Your task to perform on an android device: turn off location Image 0: 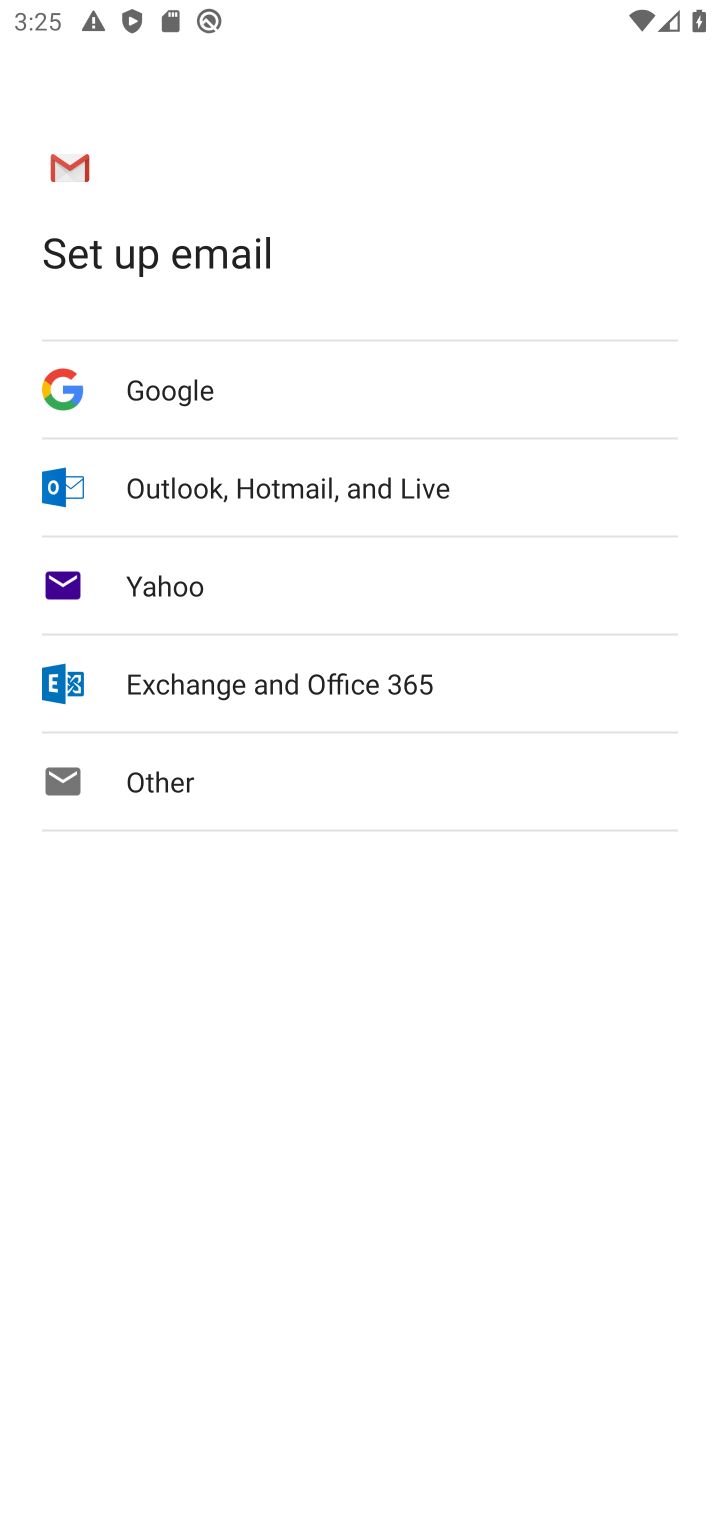
Step 0: press home button
Your task to perform on an android device: turn off location Image 1: 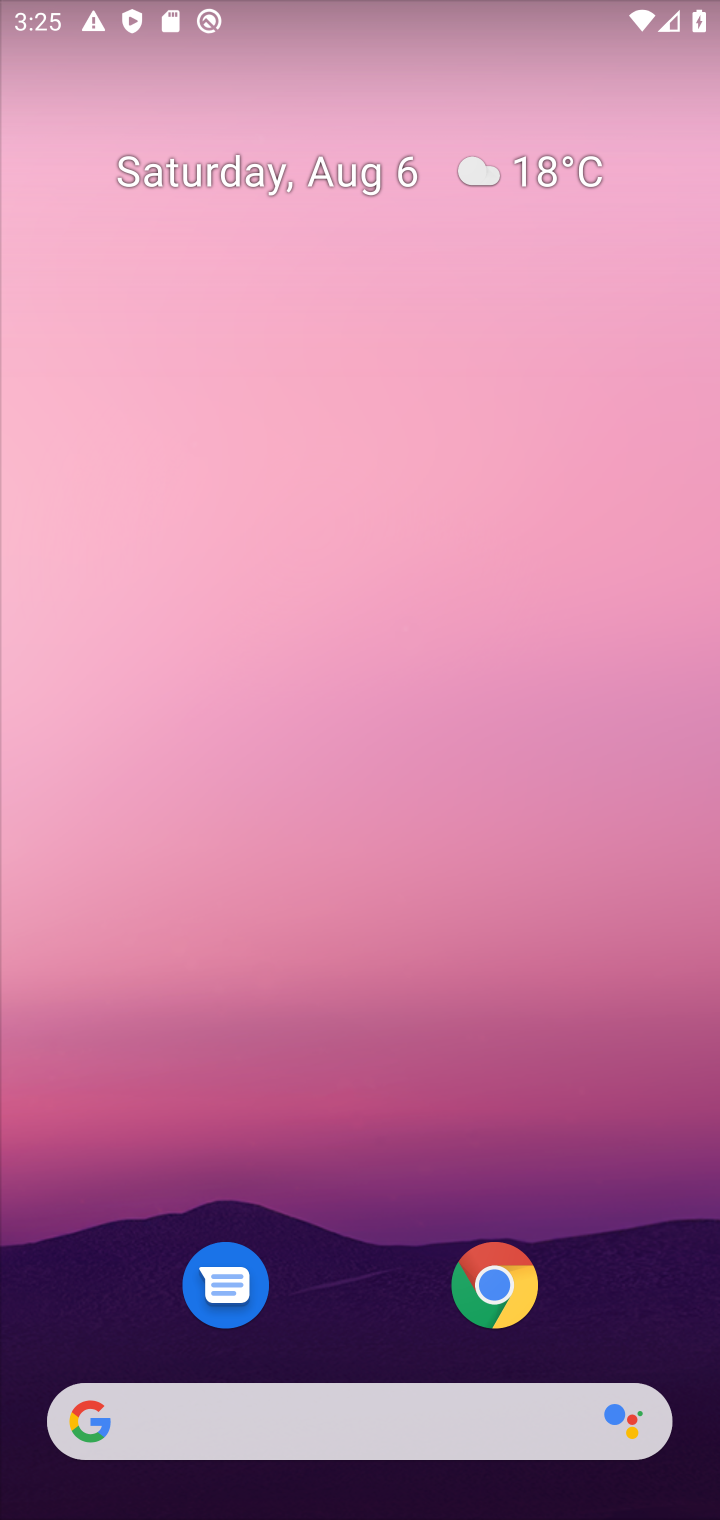
Step 1: drag from (395, 1163) to (474, 35)
Your task to perform on an android device: turn off location Image 2: 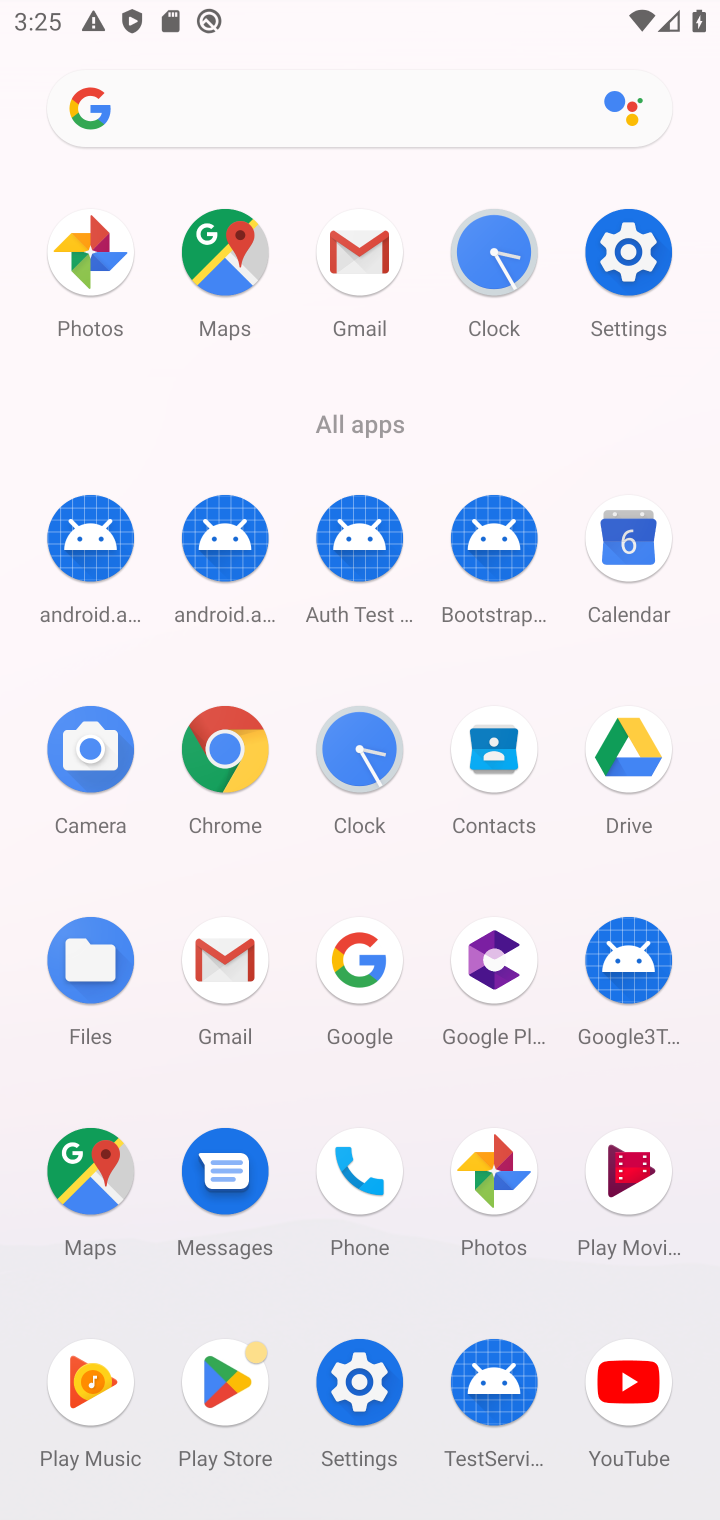
Step 2: click (626, 247)
Your task to perform on an android device: turn off location Image 3: 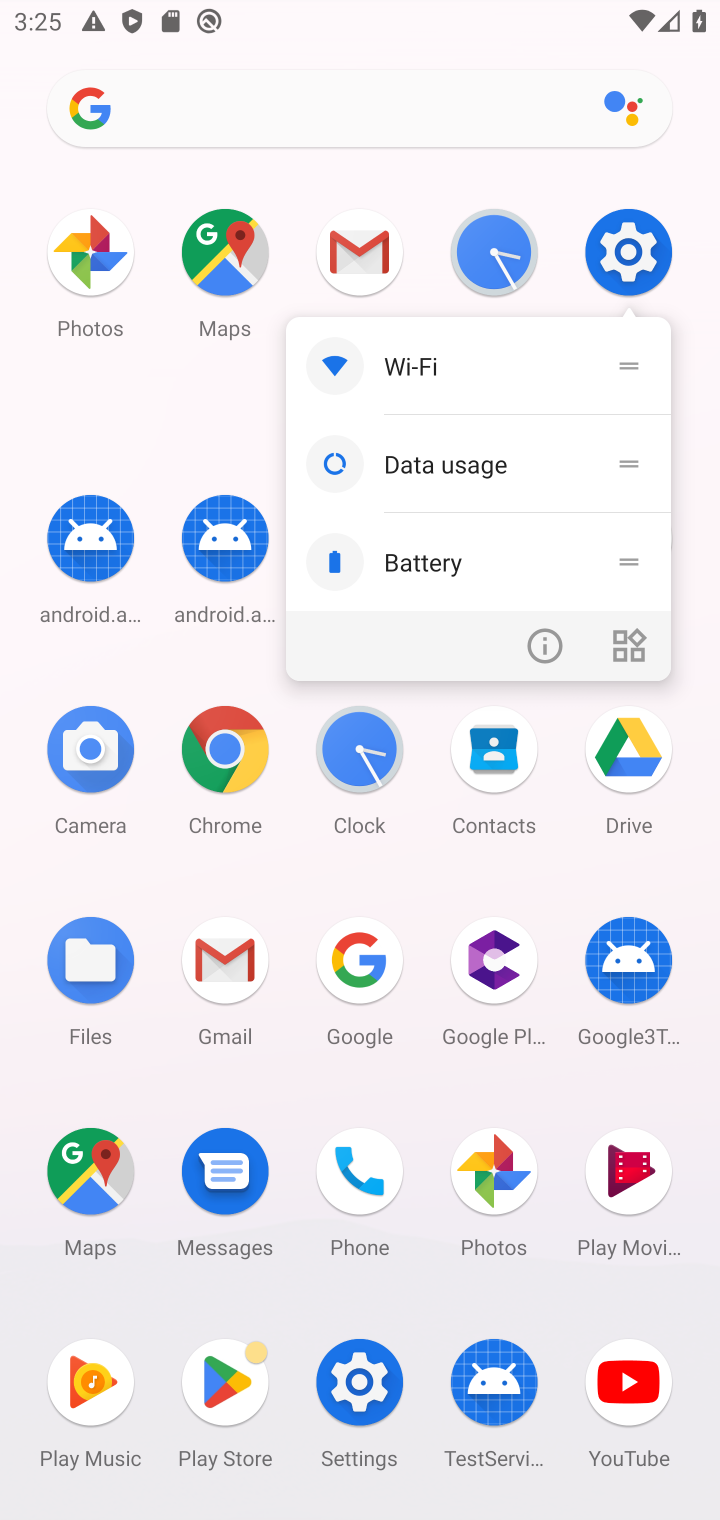
Step 3: click (630, 255)
Your task to perform on an android device: turn off location Image 4: 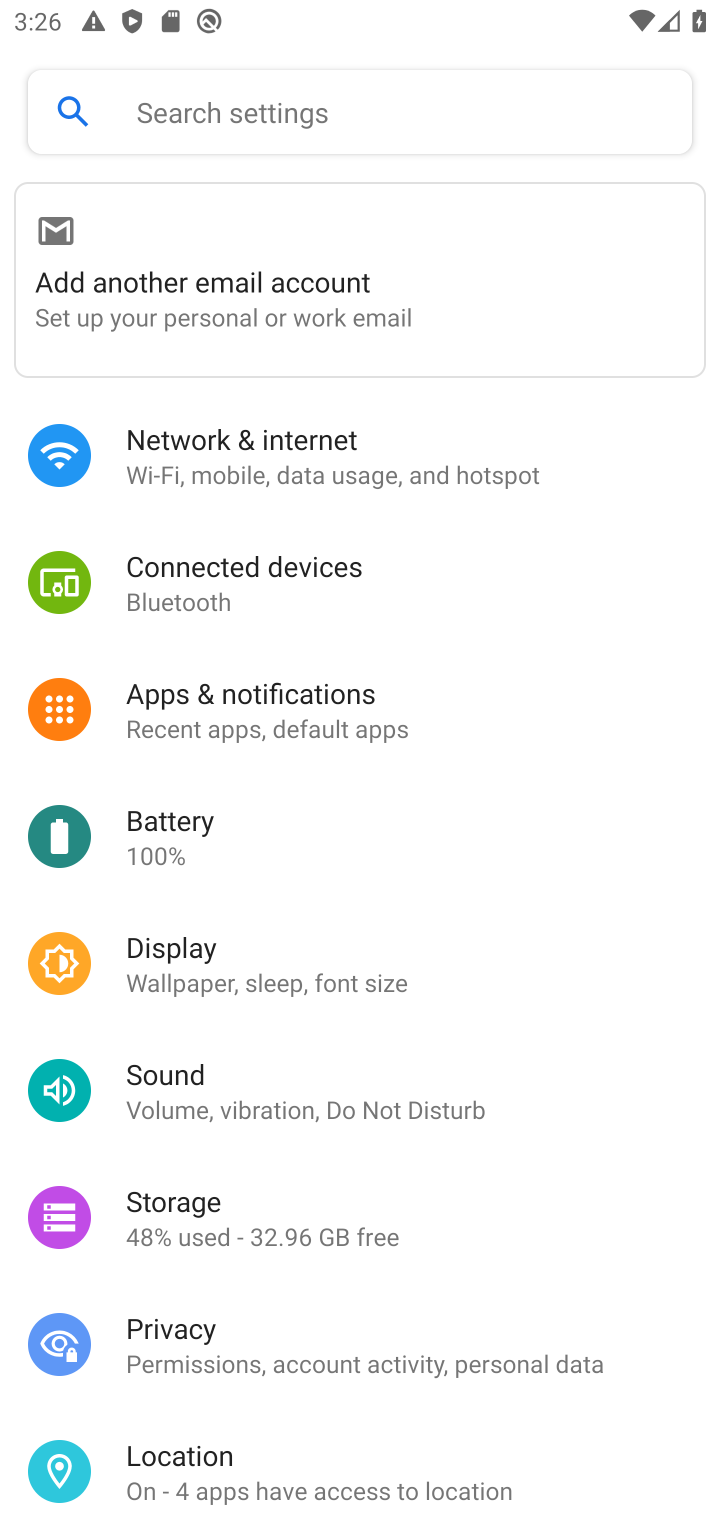
Step 4: click (293, 1445)
Your task to perform on an android device: turn off location Image 5: 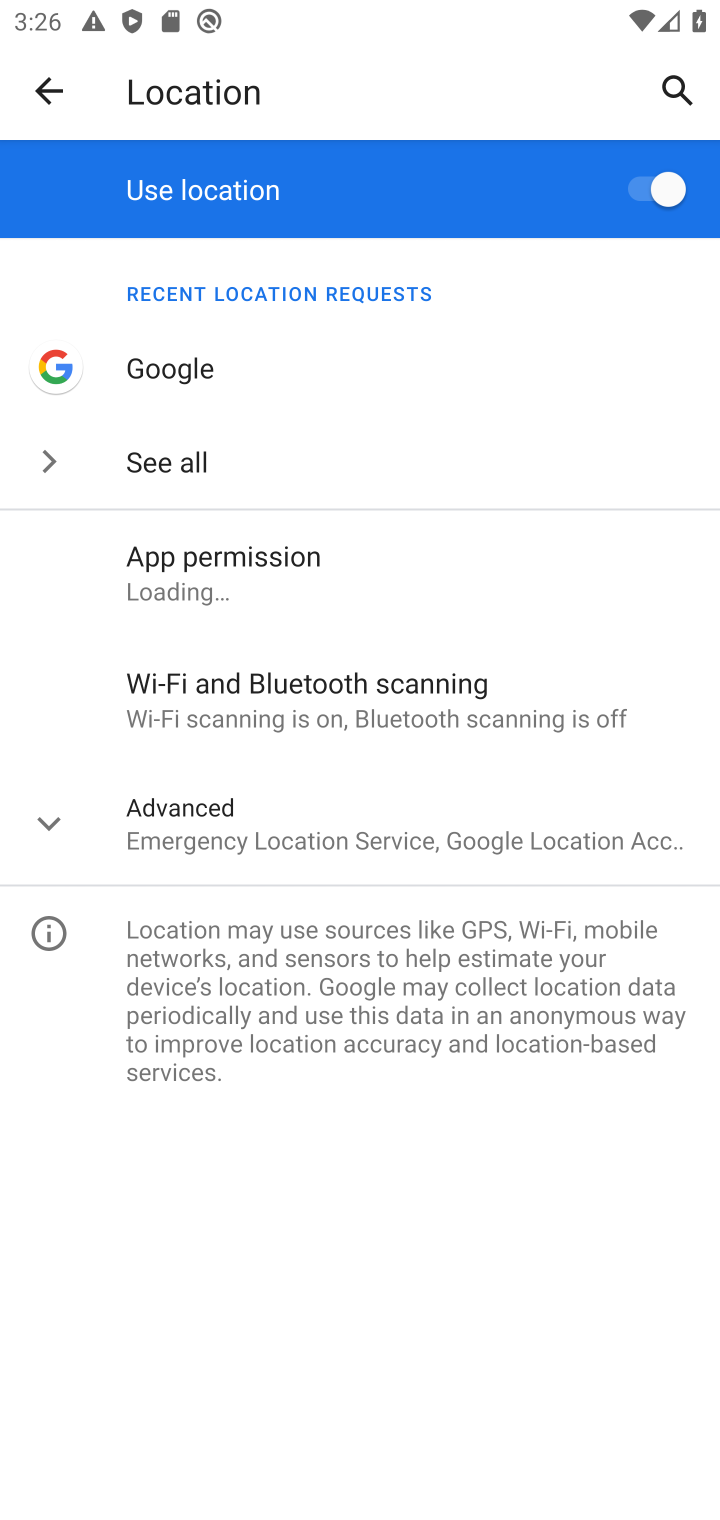
Step 5: click (651, 178)
Your task to perform on an android device: turn off location Image 6: 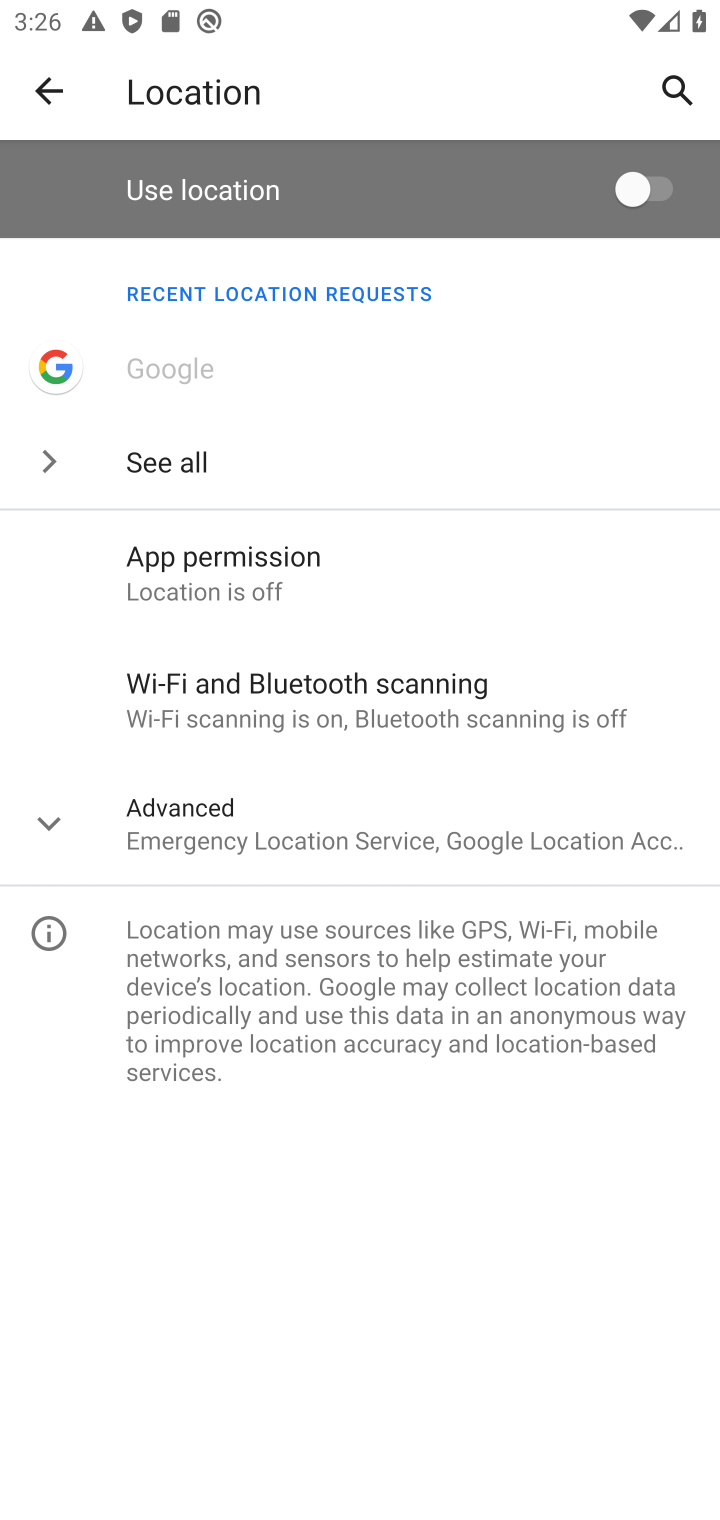
Step 6: task complete